Your task to perform on an android device: When is my next meeting? Image 0: 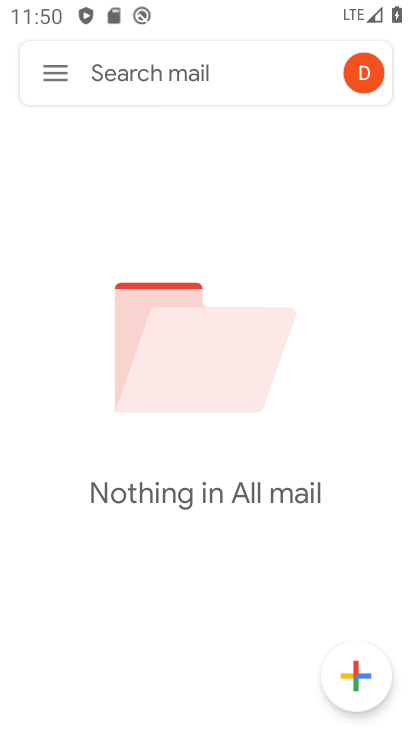
Step 0: press home button
Your task to perform on an android device: When is my next meeting? Image 1: 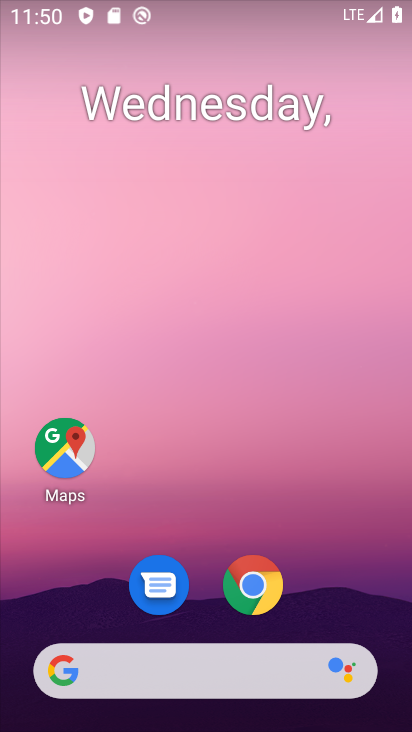
Step 1: drag from (213, 515) to (237, 53)
Your task to perform on an android device: When is my next meeting? Image 2: 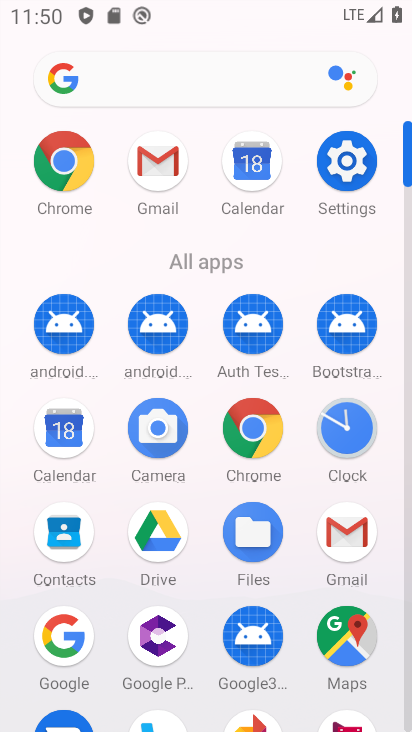
Step 2: click (261, 165)
Your task to perform on an android device: When is my next meeting? Image 3: 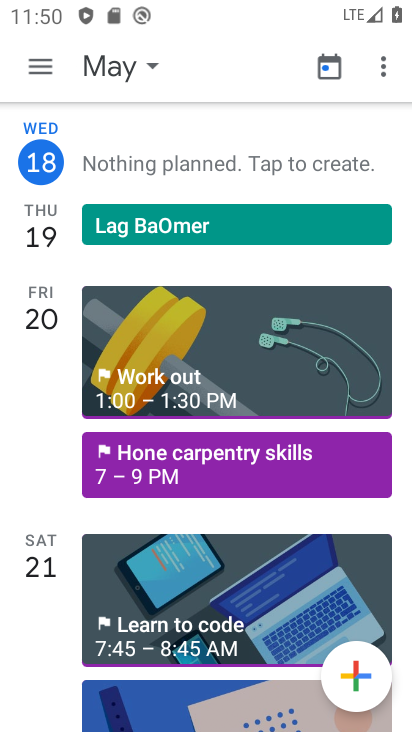
Step 3: task complete